Your task to perform on an android device: Clear the shopping cart on newegg.com. Add "lenovo thinkpad" to the cart on newegg.com, then select checkout. Image 0: 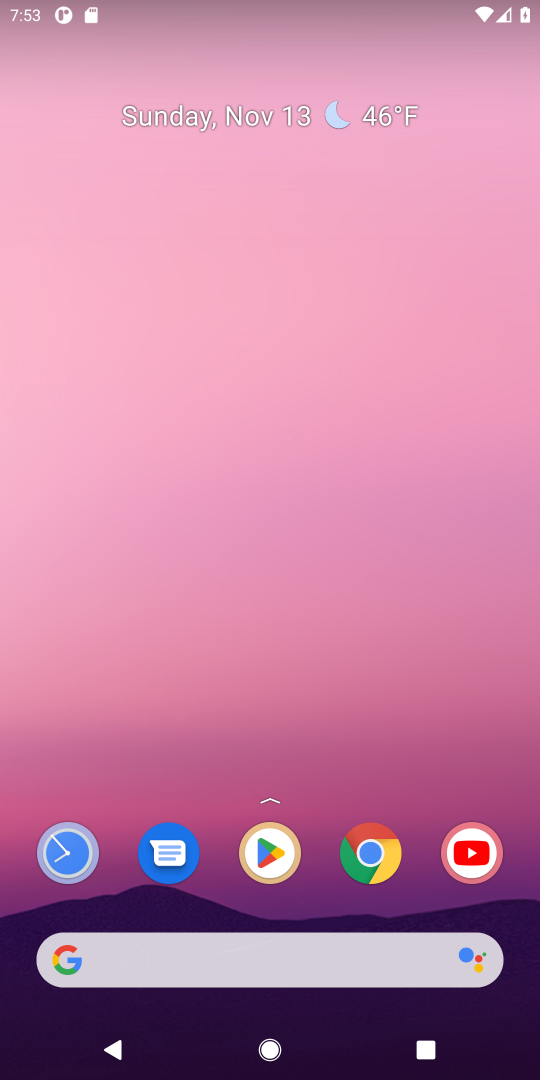
Step 0: press home button
Your task to perform on an android device: Clear the shopping cart on newegg.com. Add "lenovo thinkpad" to the cart on newegg.com, then select checkout. Image 1: 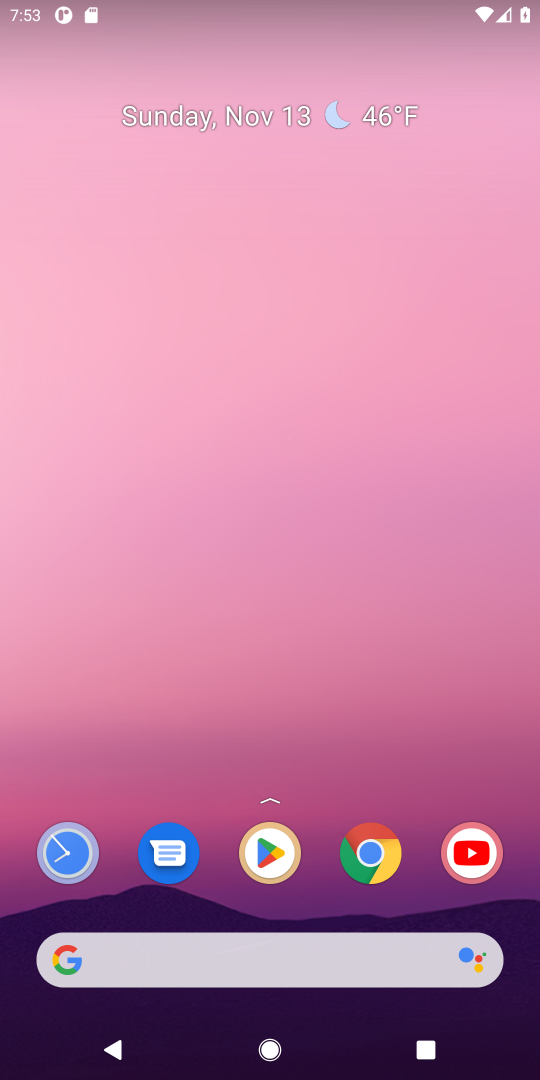
Step 1: click (93, 950)
Your task to perform on an android device: Clear the shopping cart on newegg.com. Add "lenovo thinkpad" to the cart on newegg.com, then select checkout. Image 2: 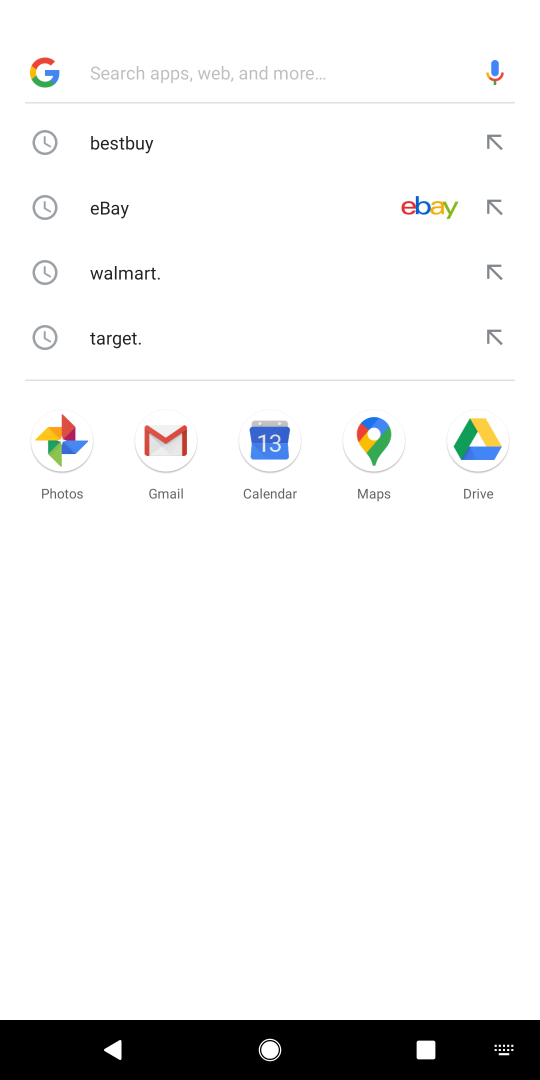
Step 2: type "newegg.com"
Your task to perform on an android device: Clear the shopping cart on newegg.com. Add "lenovo thinkpad" to the cart on newegg.com, then select checkout. Image 3: 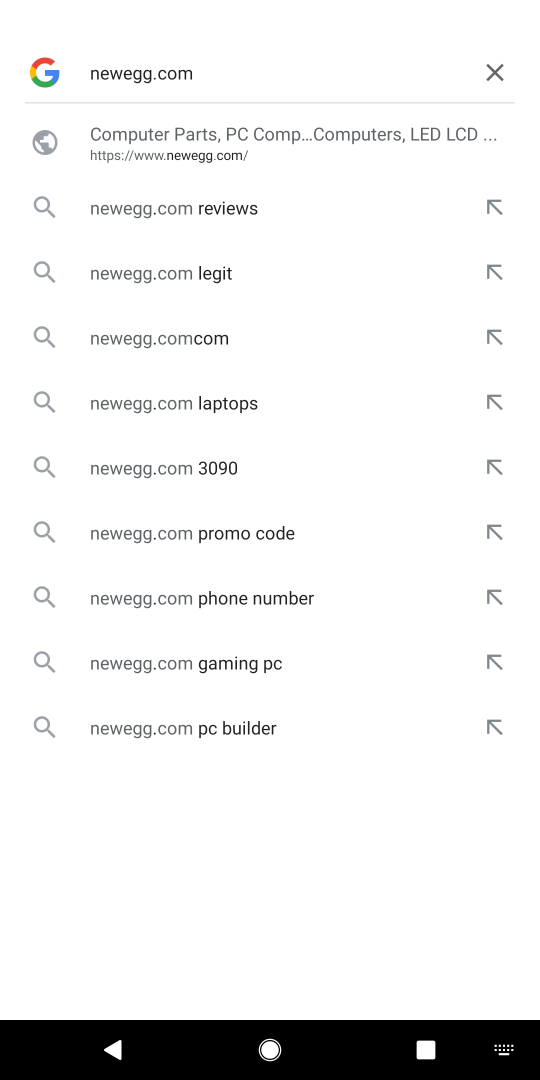
Step 3: press enter
Your task to perform on an android device: Clear the shopping cart on newegg.com. Add "lenovo thinkpad" to the cart on newegg.com, then select checkout. Image 4: 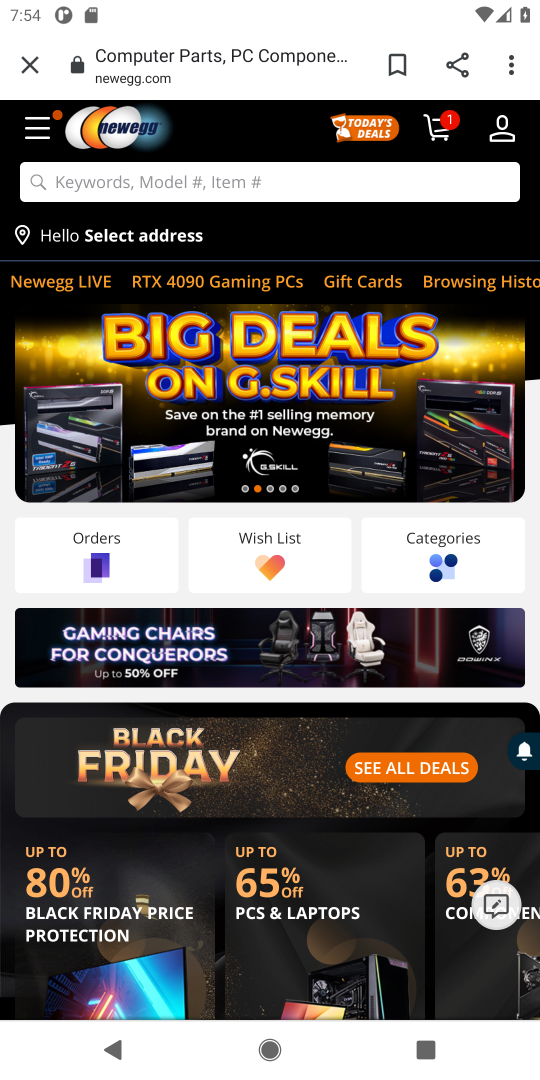
Step 4: click (438, 129)
Your task to perform on an android device: Clear the shopping cart on newegg.com. Add "lenovo thinkpad" to the cart on newegg.com, then select checkout. Image 5: 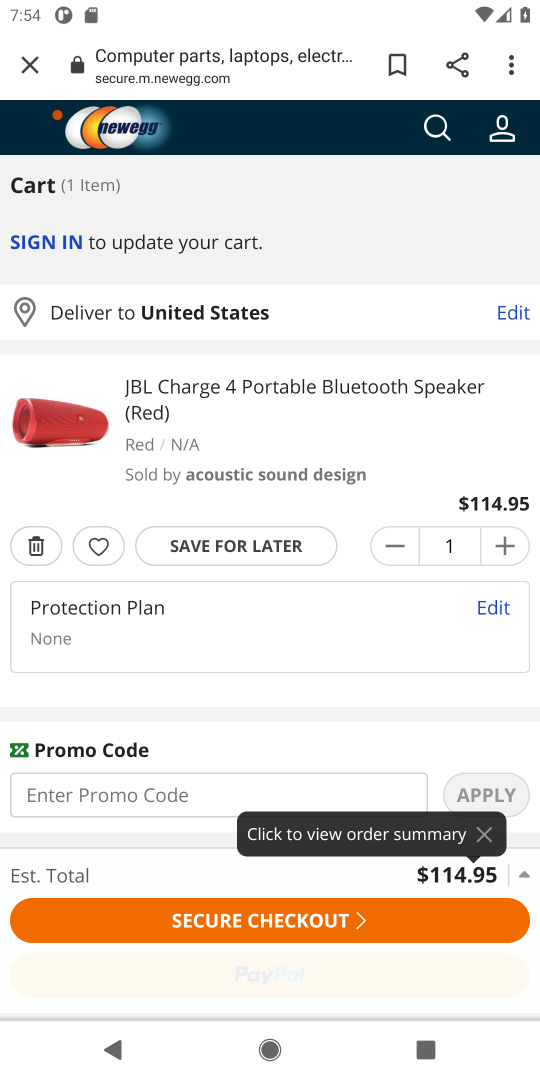
Step 5: click (38, 548)
Your task to perform on an android device: Clear the shopping cart on newegg.com. Add "lenovo thinkpad" to the cart on newegg.com, then select checkout. Image 6: 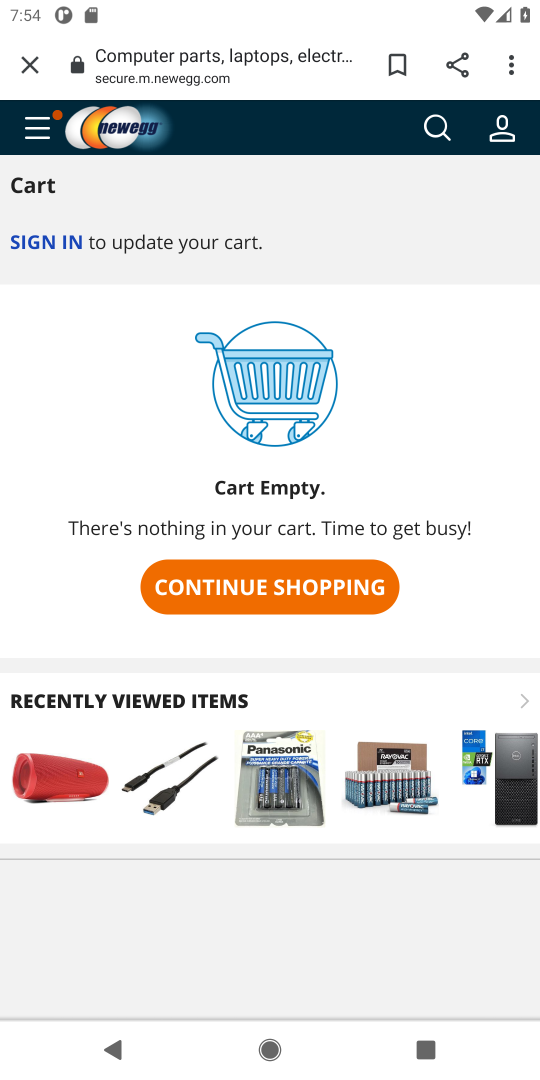
Step 6: click (436, 127)
Your task to perform on an android device: Clear the shopping cart on newegg.com. Add "lenovo thinkpad" to the cart on newegg.com, then select checkout. Image 7: 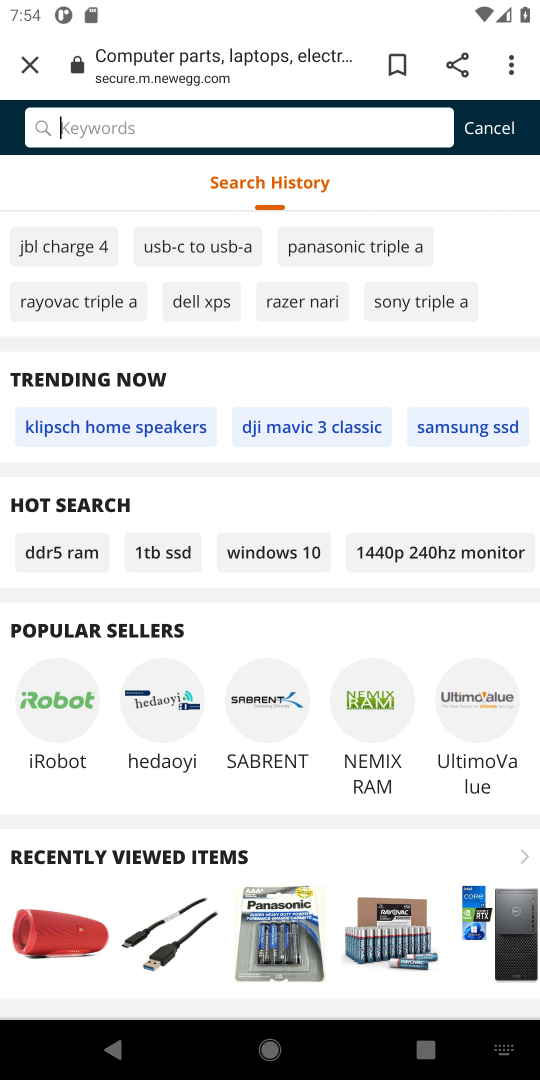
Step 7: press enter
Your task to perform on an android device: Clear the shopping cart on newegg.com. Add "lenovo thinkpad" to the cart on newegg.com, then select checkout. Image 8: 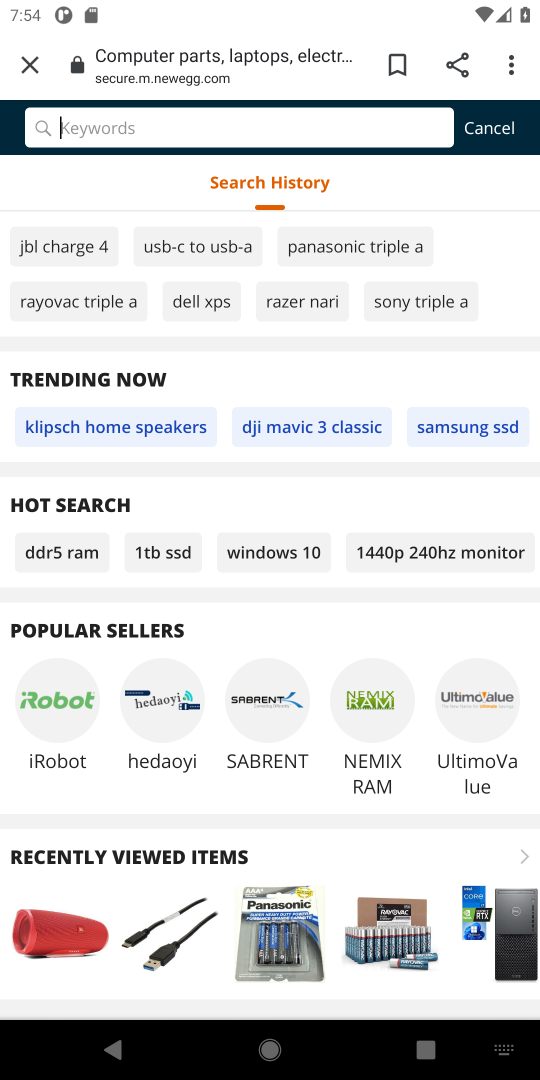
Step 8: type "lenovo thinkpad"
Your task to perform on an android device: Clear the shopping cart on newegg.com. Add "lenovo thinkpad" to the cart on newegg.com, then select checkout. Image 9: 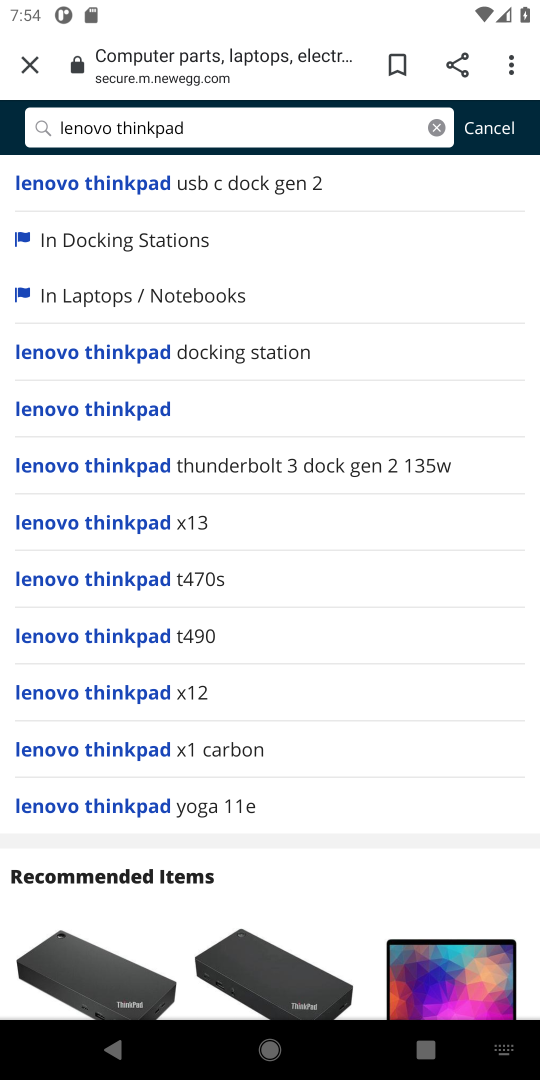
Step 9: press enter
Your task to perform on an android device: Clear the shopping cart on newegg.com. Add "lenovo thinkpad" to the cart on newegg.com, then select checkout. Image 10: 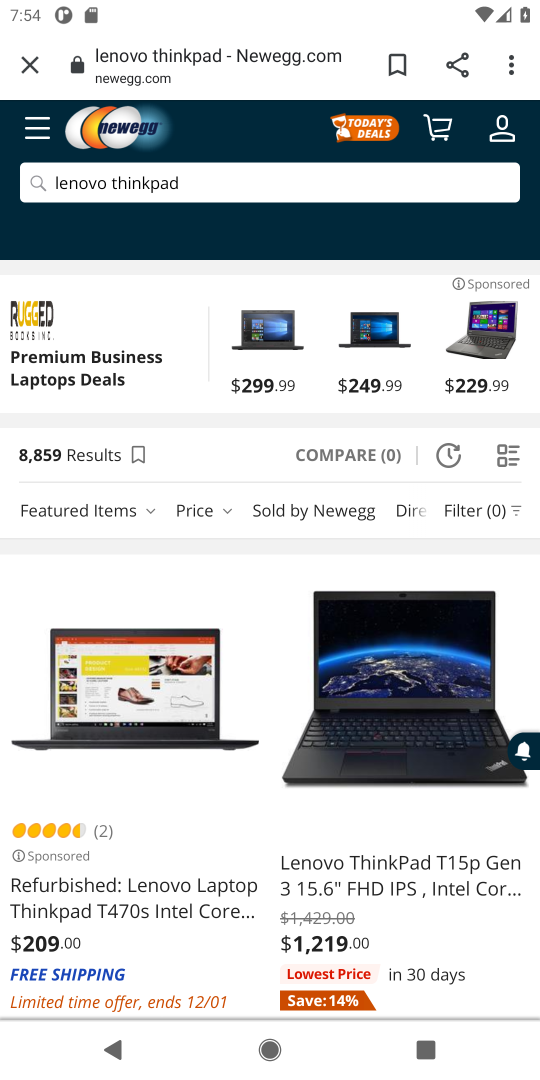
Step 10: drag from (377, 909) to (395, 579)
Your task to perform on an android device: Clear the shopping cart on newegg.com. Add "lenovo thinkpad" to the cart on newegg.com, then select checkout. Image 11: 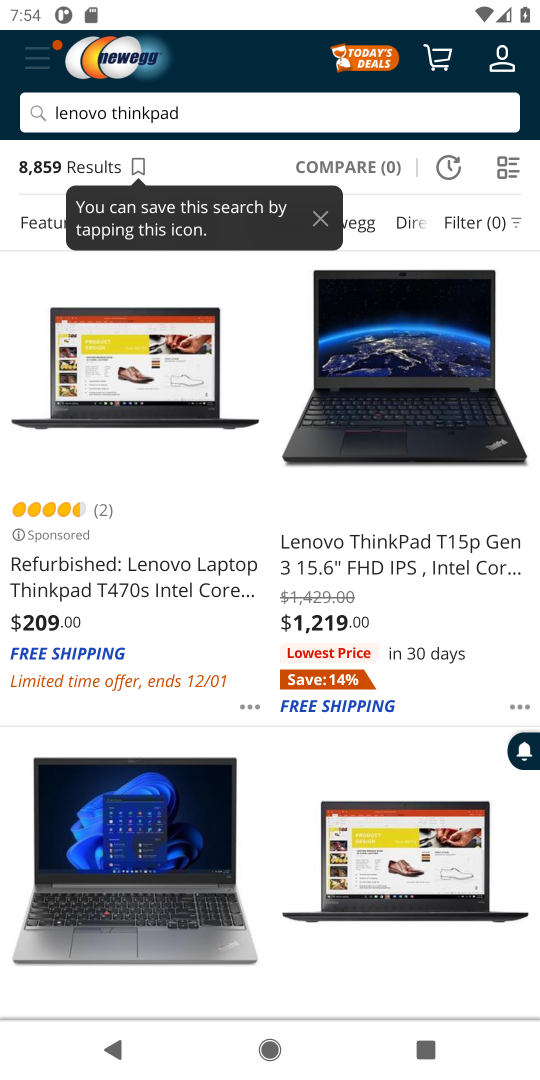
Step 11: click (388, 574)
Your task to perform on an android device: Clear the shopping cart on newegg.com. Add "lenovo thinkpad" to the cart on newegg.com, then select checkout. Image 12: 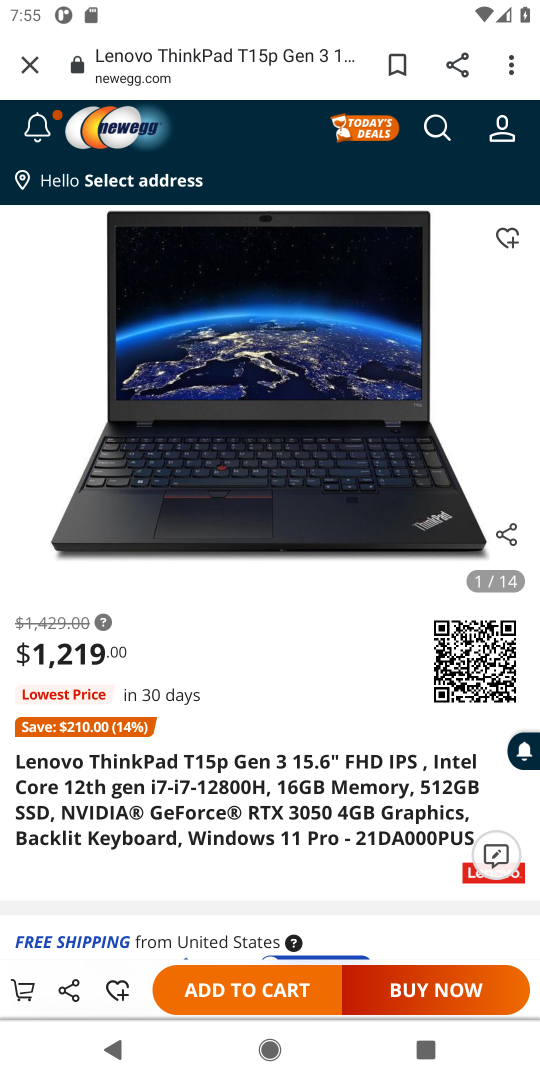
Step 12: click (212, 990)
Your task to perform on an android device: Clear the shopping cart on newegg.com. Add "lenovo thinkpad" to the cart on newegg.com, then select checkout. Image 13: 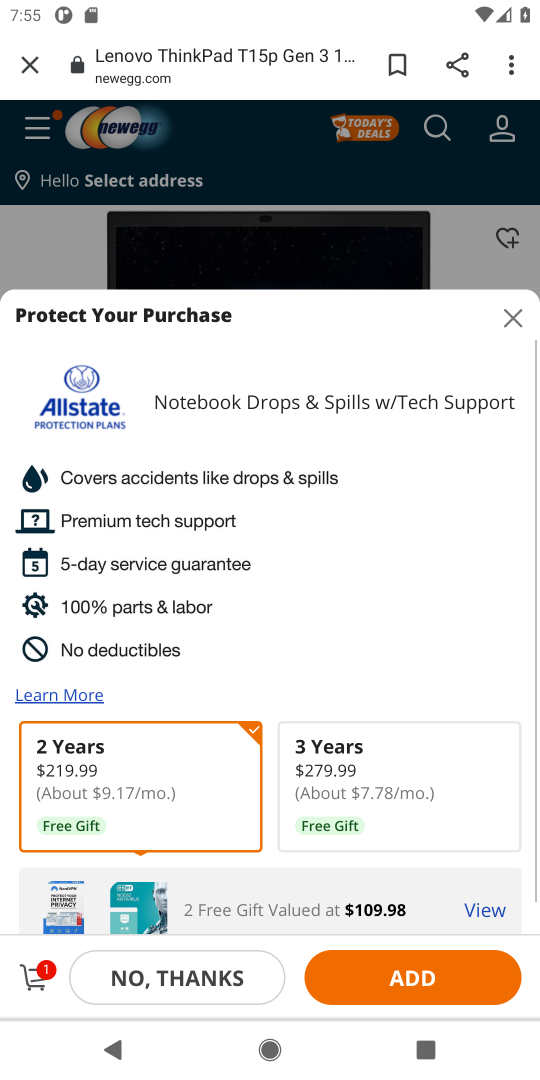
Step 13: click (140, 980)
Your task to perform on an android device: Clear the shopping cart on newegg.com. Add "lenovo thinkpad" to the cart on newegg.com, then select checkout. Image 14: 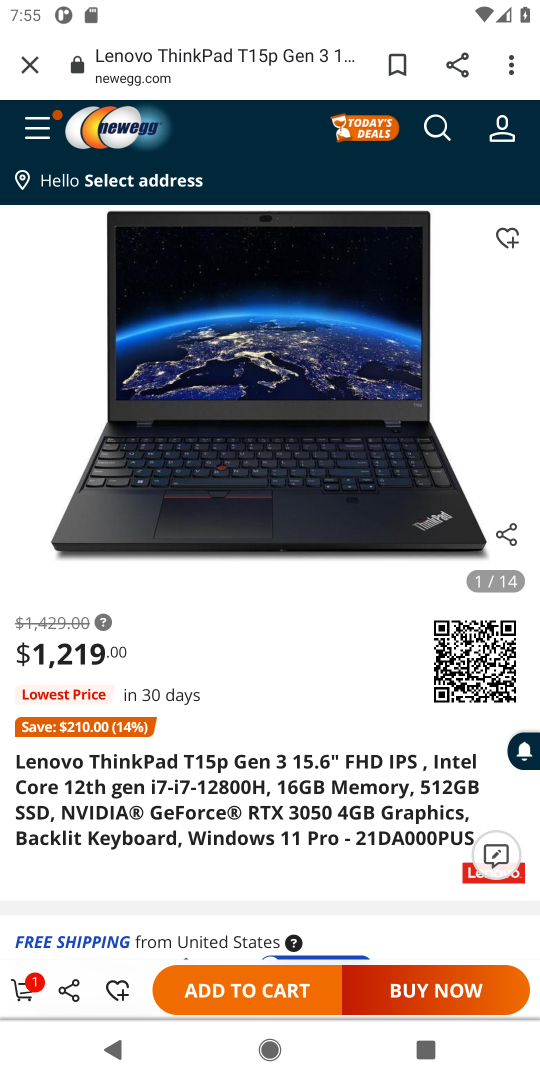
Step 14: click (14, 986)
Your task to perform on an android device: Clear the shopping cart on newegg.com. Add "lenovo thinkpad" to the cart on newegg.com, then select checkout. Image 15: 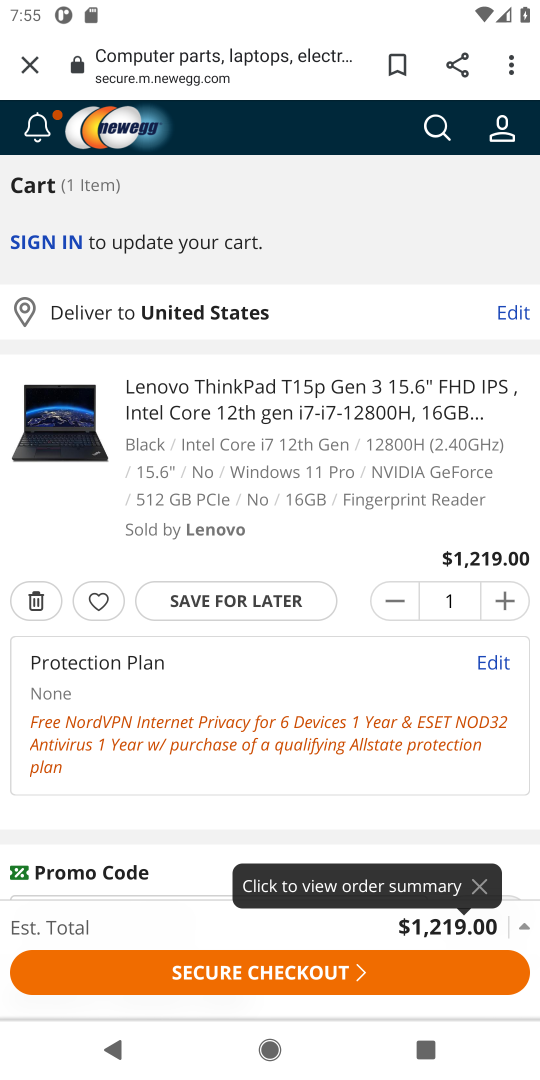
Step 15: click (257, 972)
Your task to perform on an android device: Clear the shopping cart on newegg.com. Add "lenovo thinkpad" to the cart on newegg.com, then select checkout. Image 16: 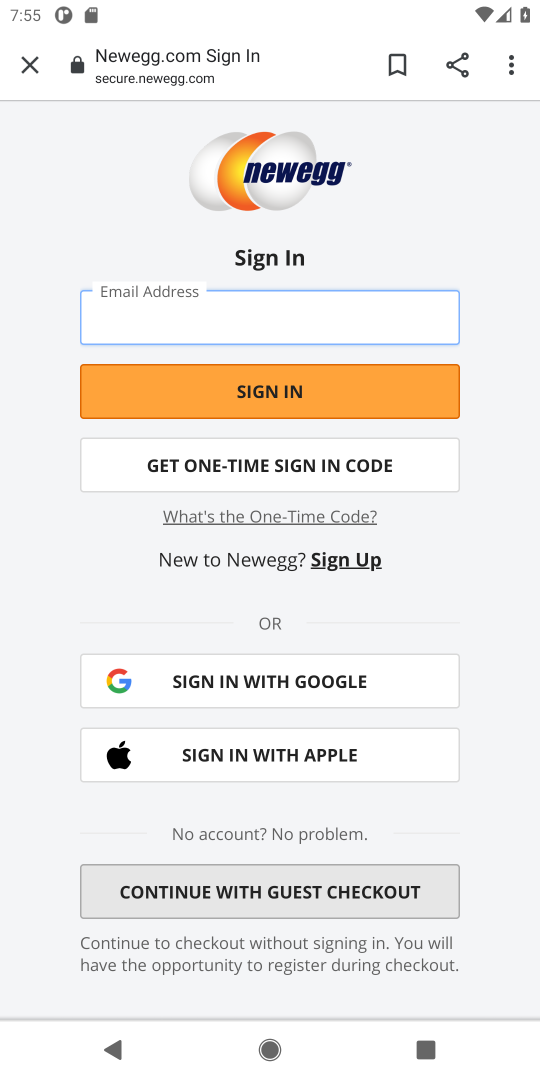
Step 16: task complete